Your task to perform on an android device: Add dell alienware to the cart on newegg, then select checkout. Image 0: 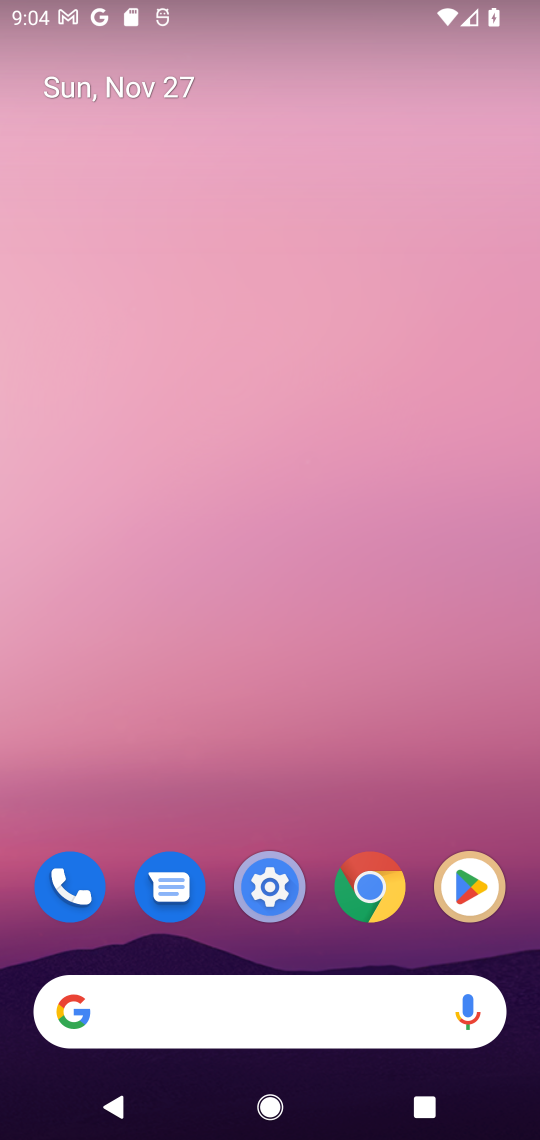
Step 0: click (311, 1004)
Your task to perform on an android device: Add dell alienware to the cart on newegg, then select checkout. Image 1: 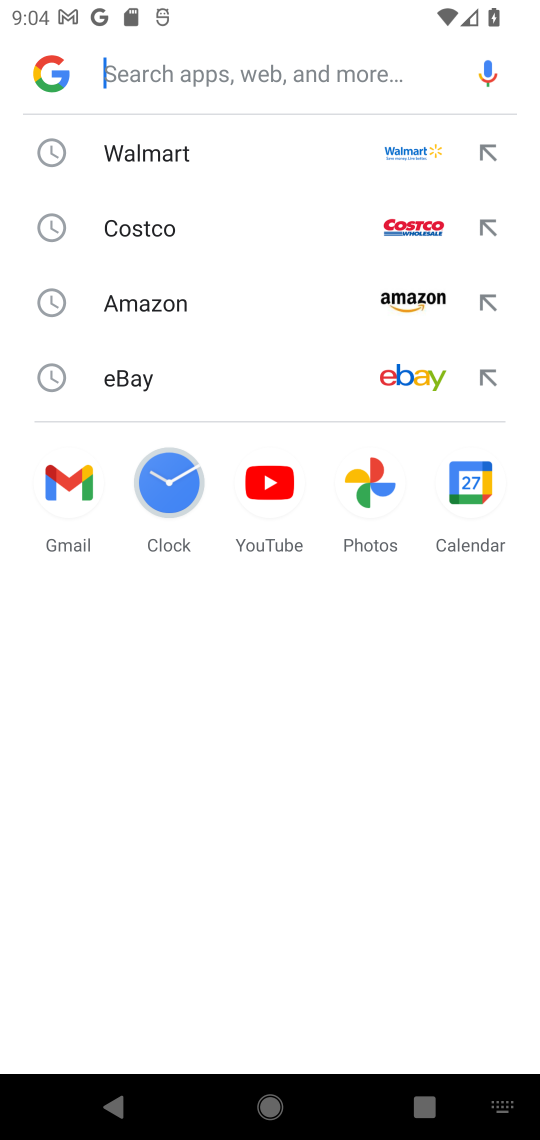
Step 1: type "newgee"
Your task to perform on an android device: Add dell alienware to the cart on newegg, then select checkout. Image 2: 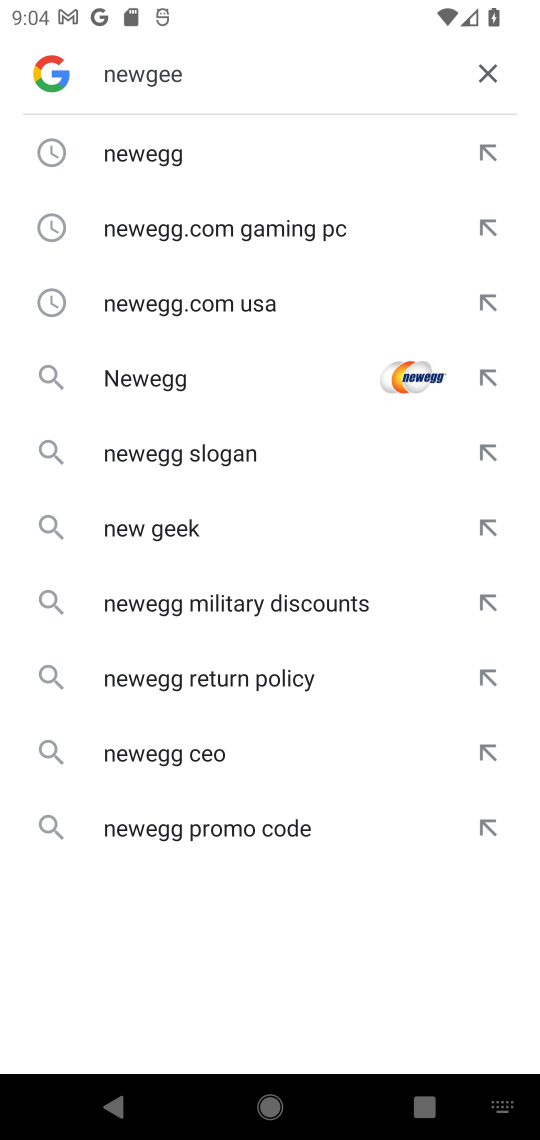
Step 2: click (209, 124)
Your task to perform on an android device: Add dell alienware to the cart on newegg, then select checkout. Image 3: 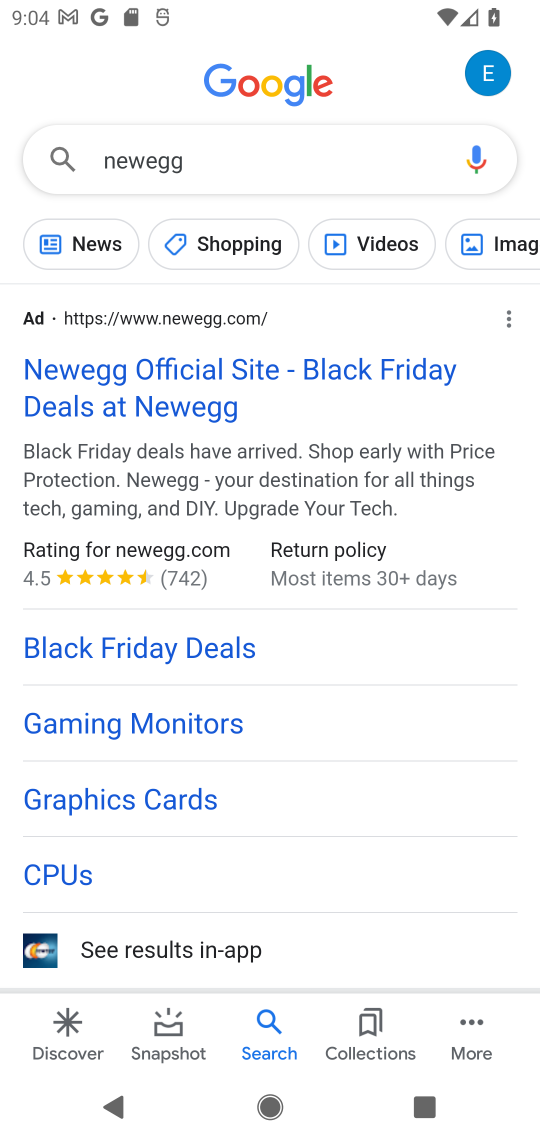
Step 3: click (170, 392)
Your task to perform on an android device: Add dell alienware to the cart on newegg, then select checkout. Image 4: 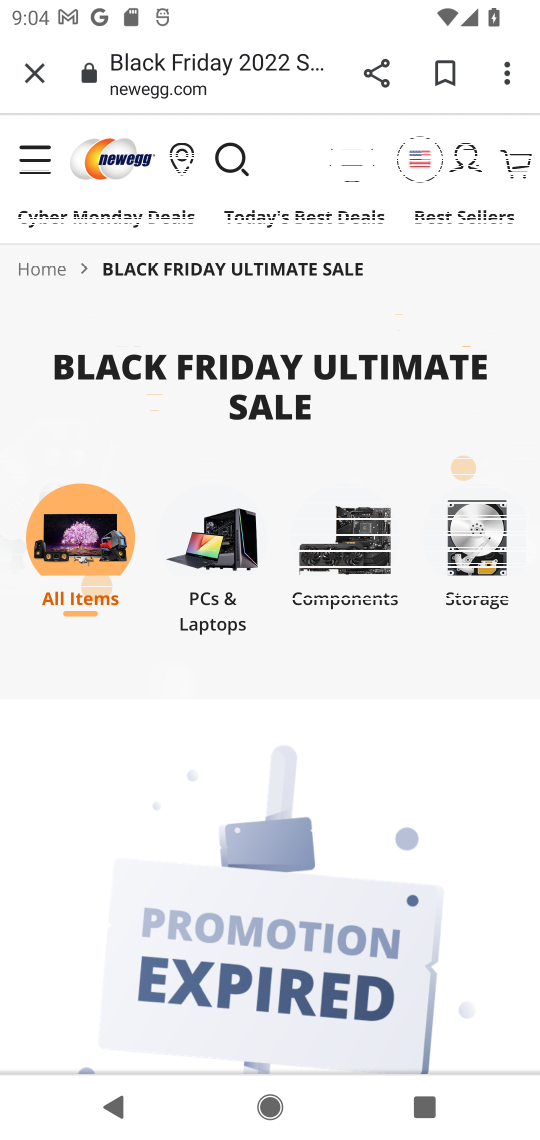
Step 4: click (218, 163)
Your task to perform on an android device: Add dell alienware to the cart on newegg, then select checkout. Image 5: 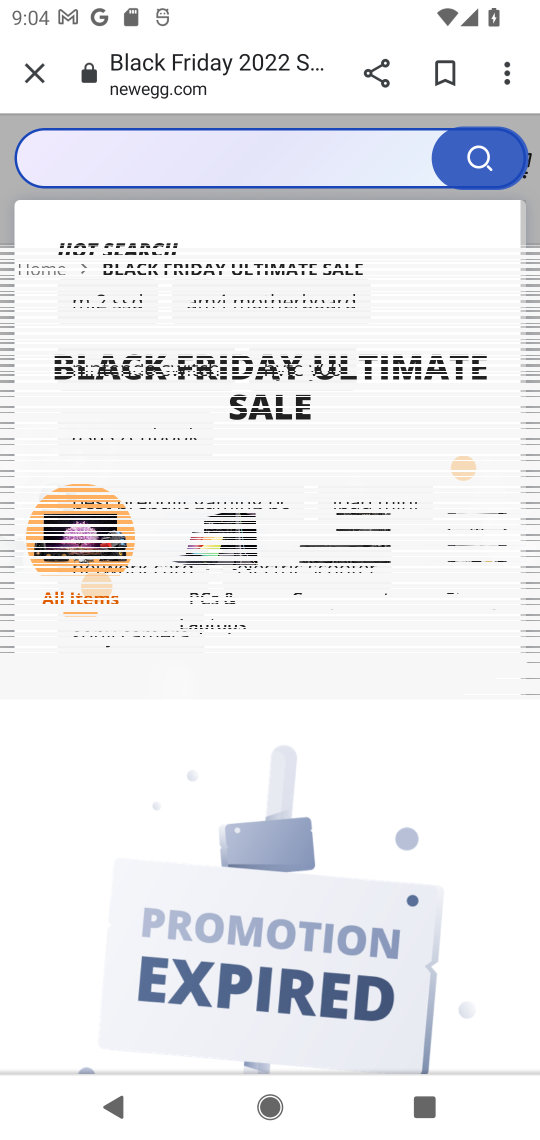
Step 5: click (295, 164)
Your task to perform on an android device: Add dell alienware to the cart on newegg, then select checkout. Image 6: 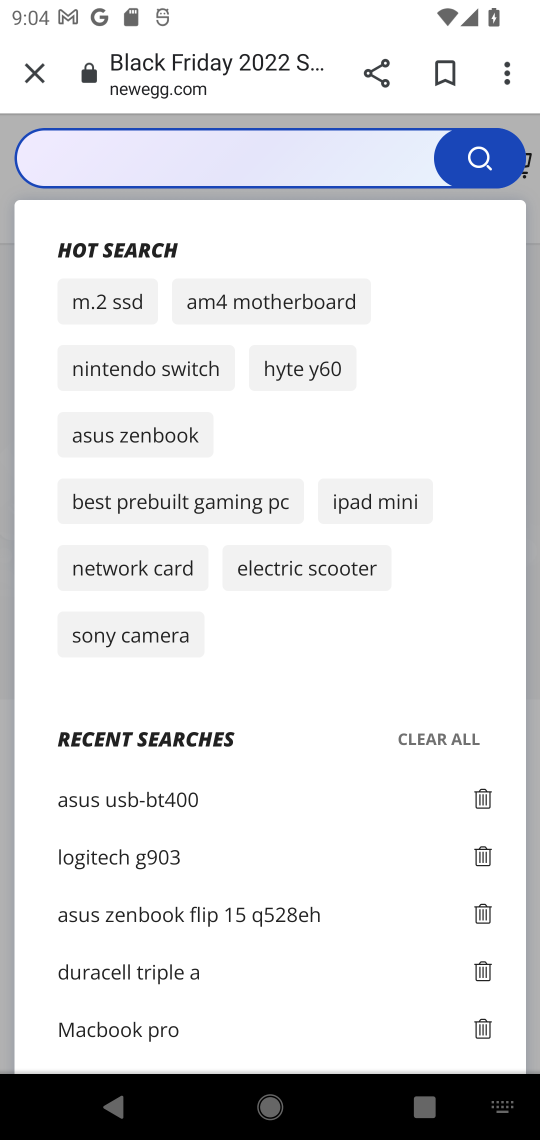
Step 6: type "dell alienware"
Your task to perform on an android device: Add dell alienware to the cart on newegg, then select checkout. Image 7: 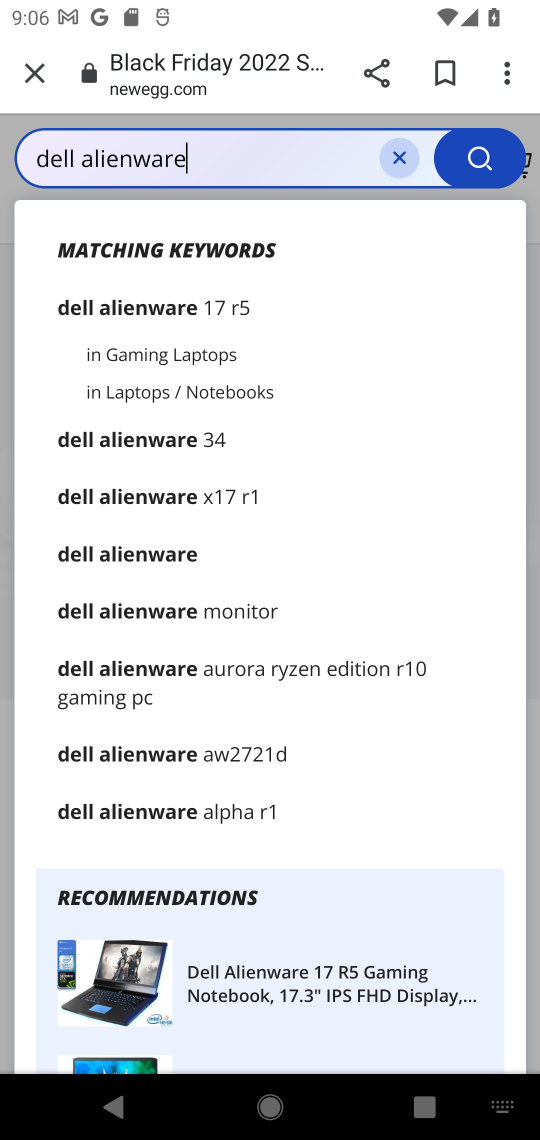
Step 7: click (224, 311)
Your task to perform on an android device: Add dell alienware to the cart on newegg, then select checkout. Image 8: 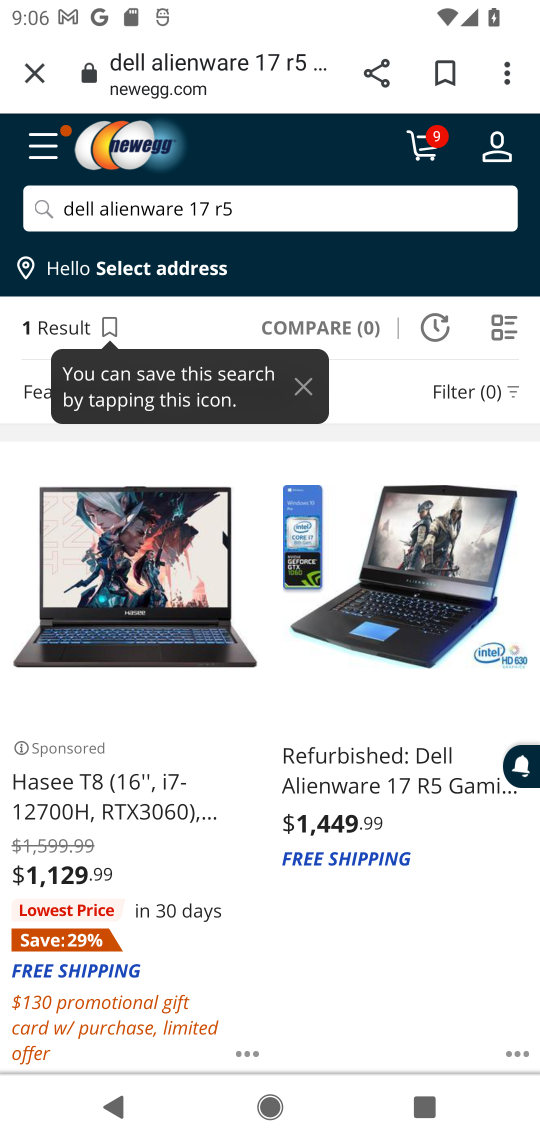
Step 8: click (170, 838)
Your task to perform on an android device: Add dell alienware to the cart on newegg, then select checkout. Image 9: 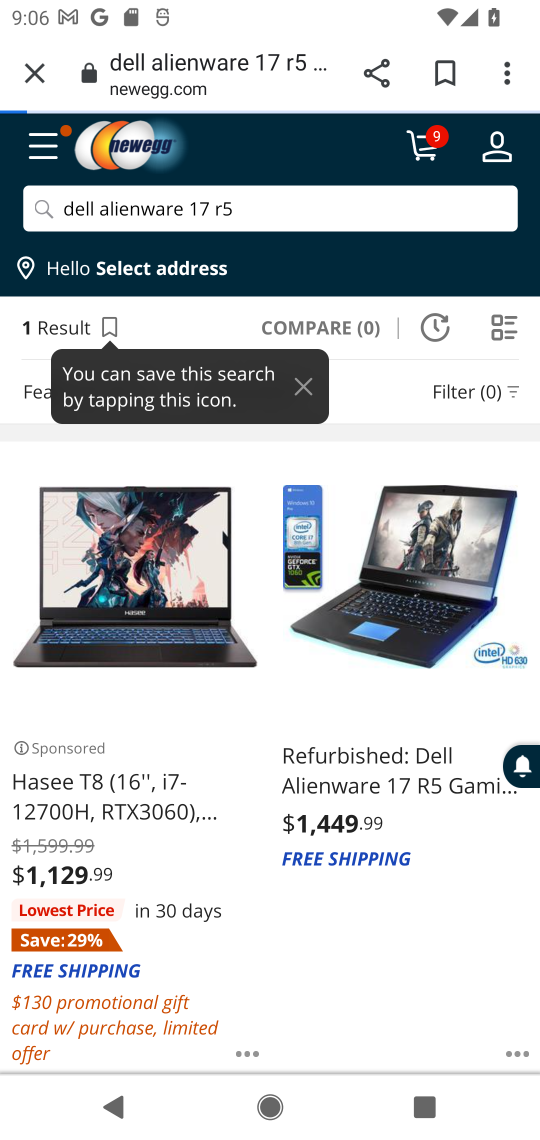
Step 9: task complete